Your task to perform on an android device: turn off priority inbox in the gmail app Image 0: 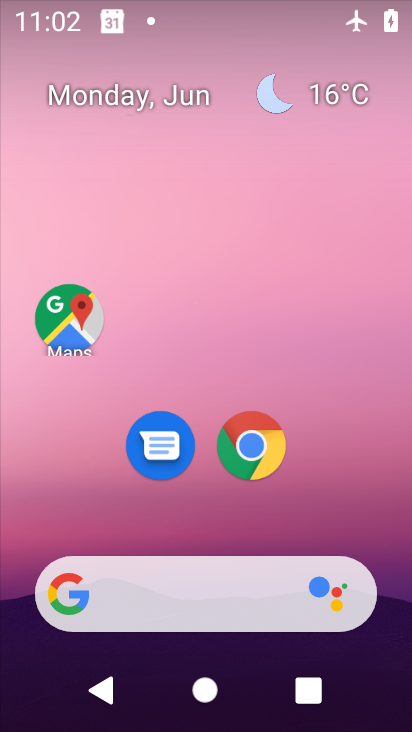
Step 0: drag from (289, 518) to (166, 1)
Your task to perform on an android device: turn off priority inbox in the gmail app Image 1: 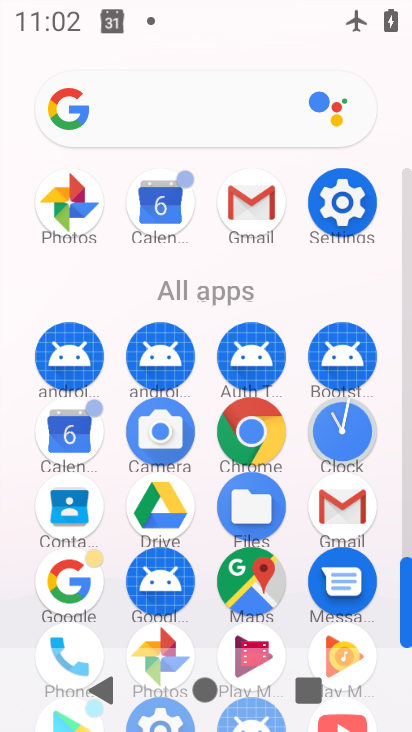
Step 1: click (262, 191)
Your task to perform on an android device: turn off priority inbox in the gmail app Image 2: 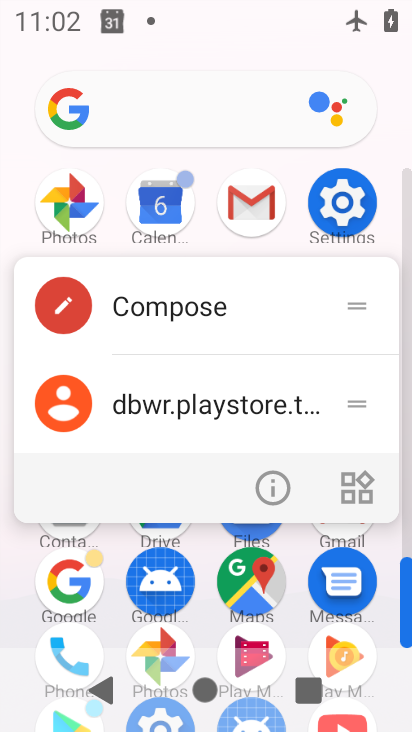
Step 2: click (248, 193)
Your task to perform on an android device: turn off priority inbox in the gmail app Image 3: 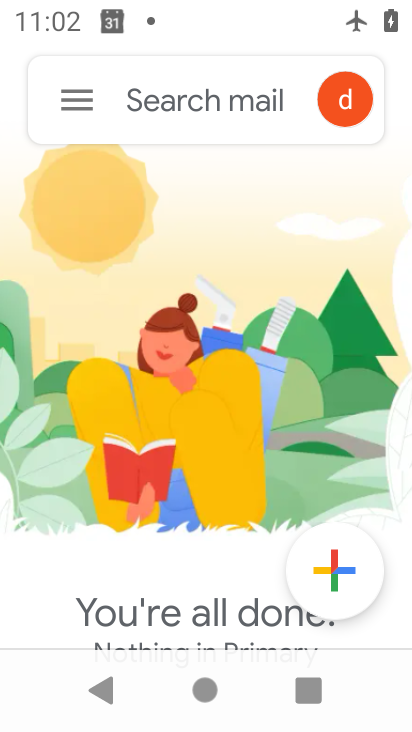
Step 3: click (63, 107)
Your task to perform on an android device: turn off priority inbox in the gmail app Image 4: 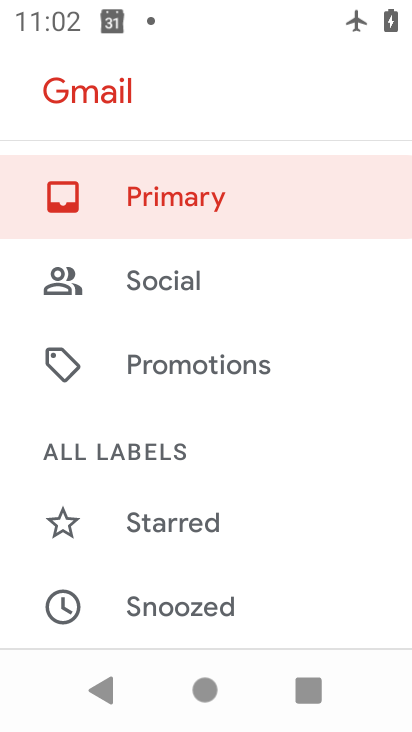
Step 4: drag from (319, 634) to (191, 0)
Your task to perform on an android device: turn off priority inbox in the gmail app Image 5: 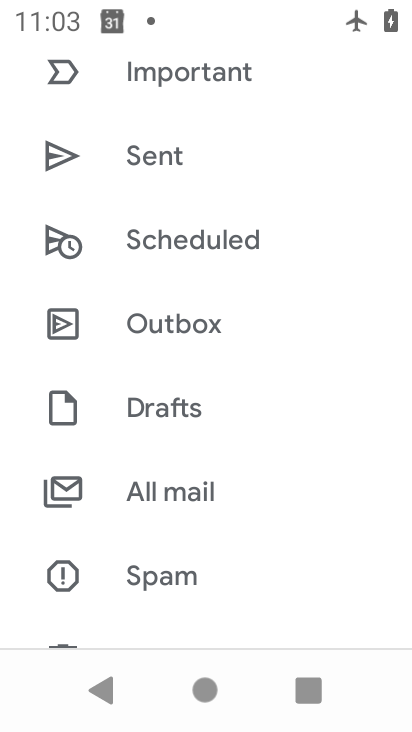
Step 5: drag from (319, 569) to (94, 75)
Your task to perform on an android device: turn off priority inbox in the gmail app Image 6: 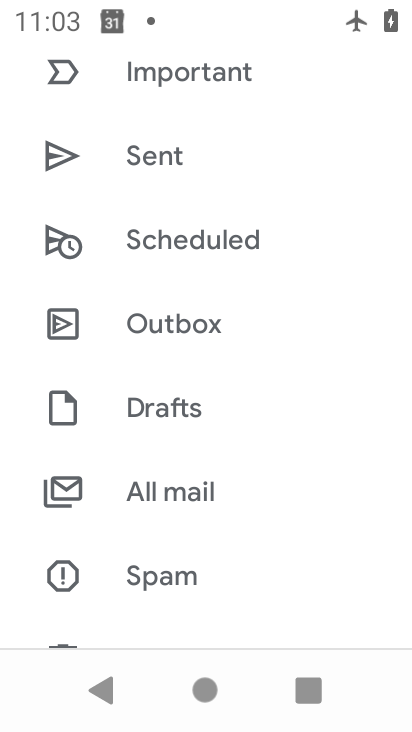
Step 6: drag from (235, 583) to (207, 382)
Your task to perform on an android device: turn off priority inbox in the gmail app Image 7: 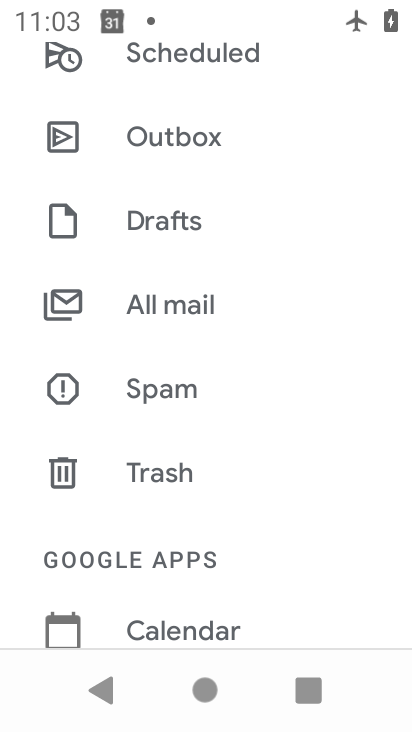
Step 7: drag from (321, 574) to (219, 167)
Your task to perform on an android device: turn off priority inbox in the gmail app Image 8: 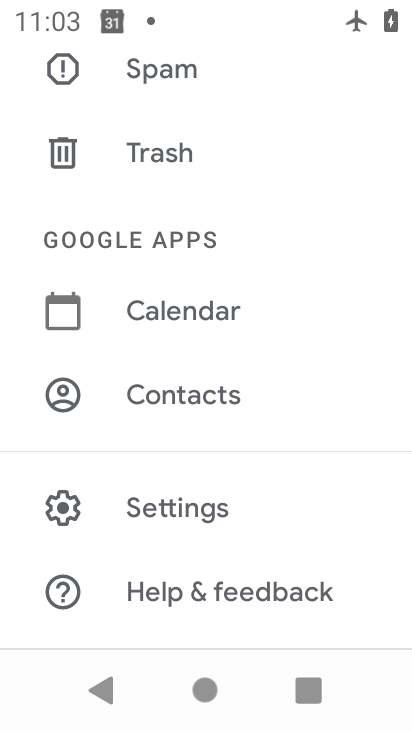
Step 8: click (169, 506)
Your task to perform on an android device: turn off priority inbox in the gmail app Image 9: 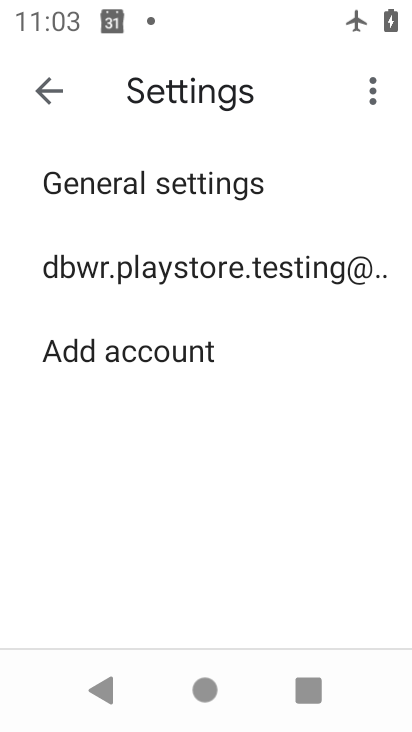
Step 9: click (192, 261)
Your task to perform on an android device: turn off priority inbox in the gmail app Image 10: 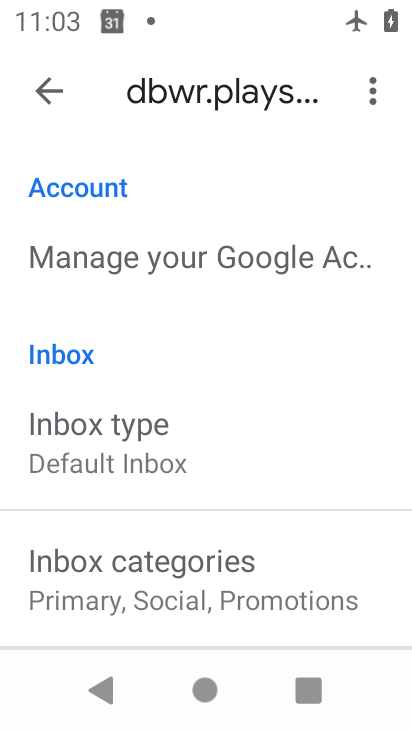
Step 10: click (103, 445)
Your task to perform on an android device: turn off priority inbox in the gmail app Image 11: 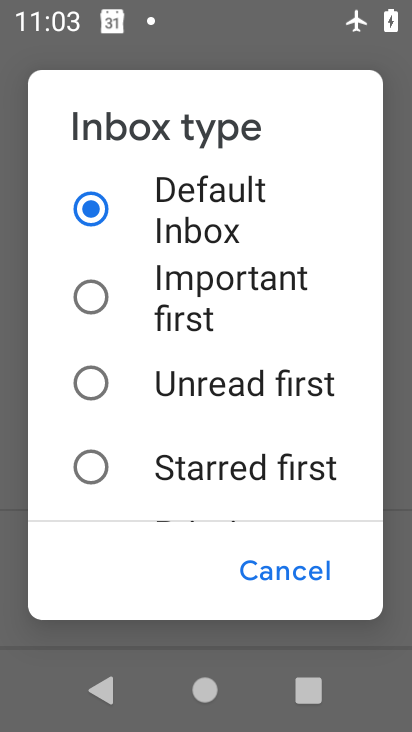
Step 11: task complete